Your task to perform on an android device: turn on translation in the chrome app Image 0: 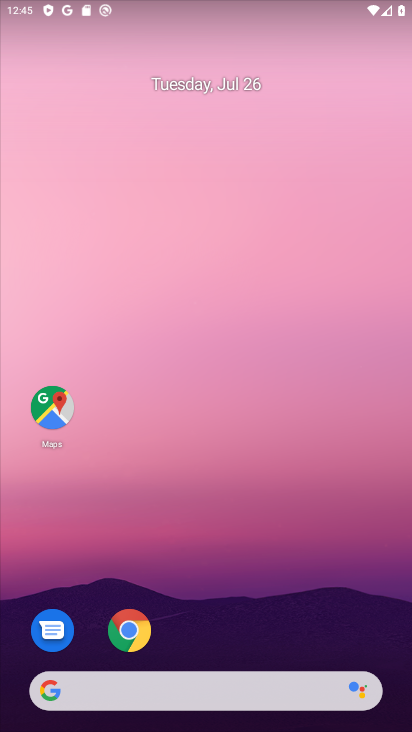
Step 0: click (133, 633)
Your task to perform on an android device: turn on translation in the chrome app Image 1: 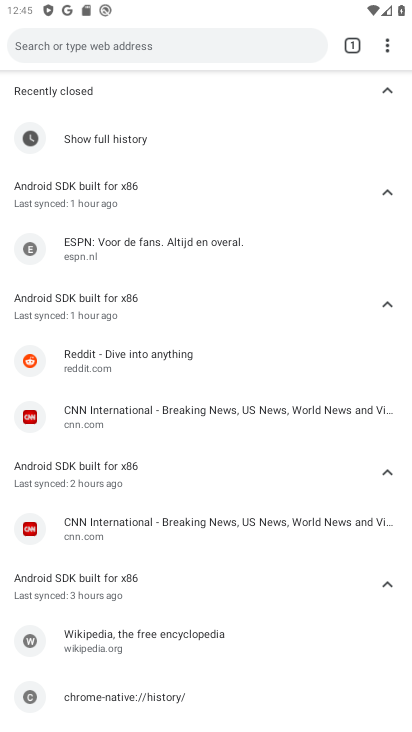
Step 1: click (384, 49)
Your task to perform on an android device: turn on translation in the chrome app Image 2: 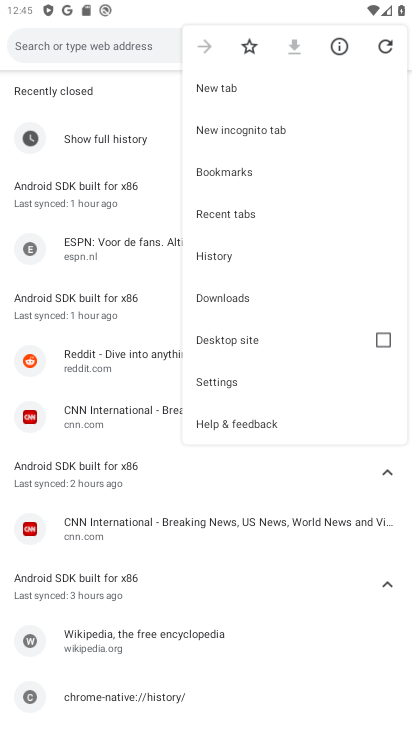
Step 2: click (232, 382)
Your task to perform on an android device: turn on translation in the chrome app Image 3: 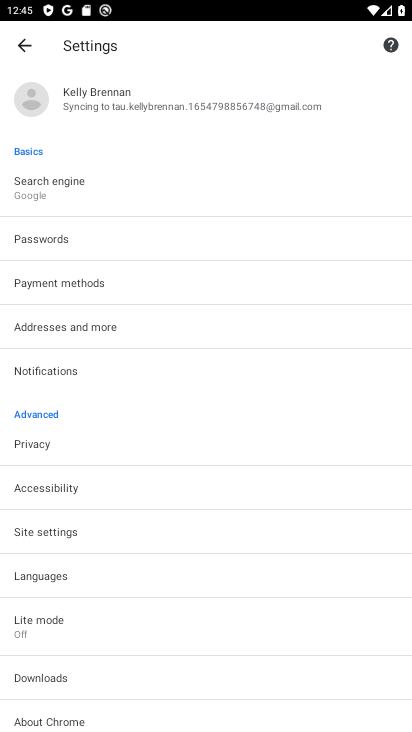
Step 3: click (62, 573)
Your task to perform on an android device: turn on translation in the chrome app Image 4: 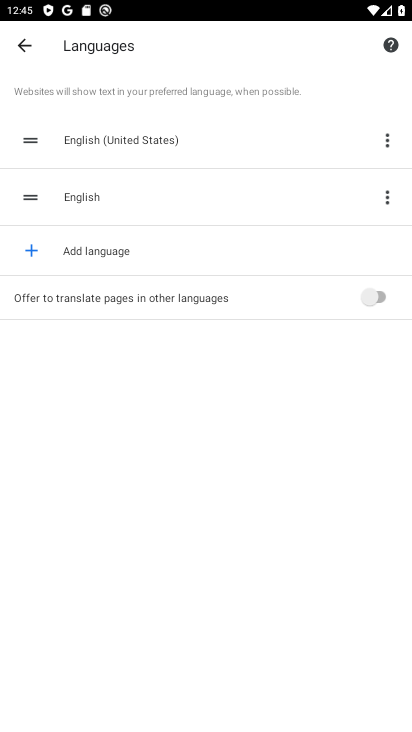
Step 4: click (382, 292)
Your task to perform on an android device: turn on translation in the chrome app Image 5: 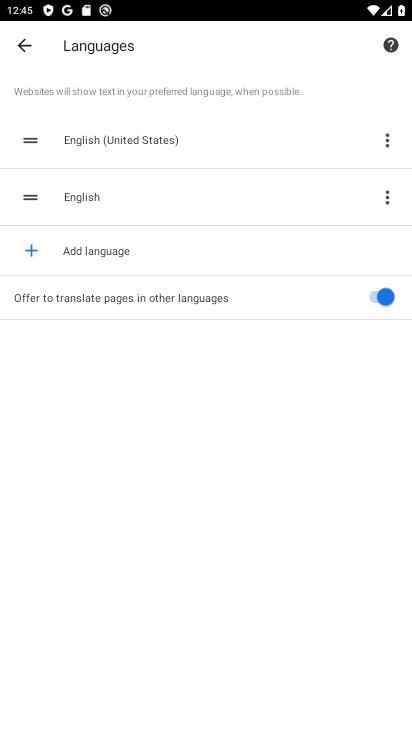
Step 5: task complete